Your task to perform on an android device: What's on my calendar tomorrow? Image 0: 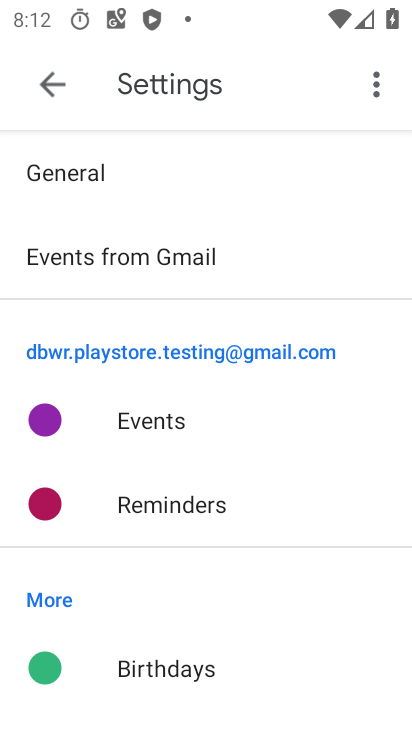
Step 0: press home button
Your task to perform on an android device: What's on my calendar tomorrow? Image 1: 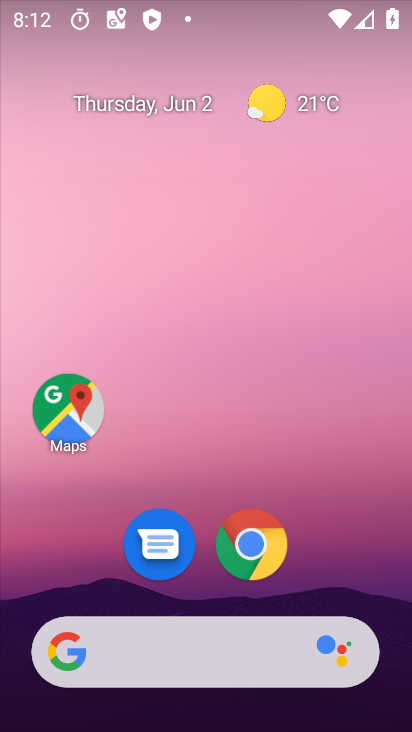
Step 1: drag from (401, 610) to (358, 286)
Your task to perform on an android device: What's on my calendar tomorrow? Image 2: 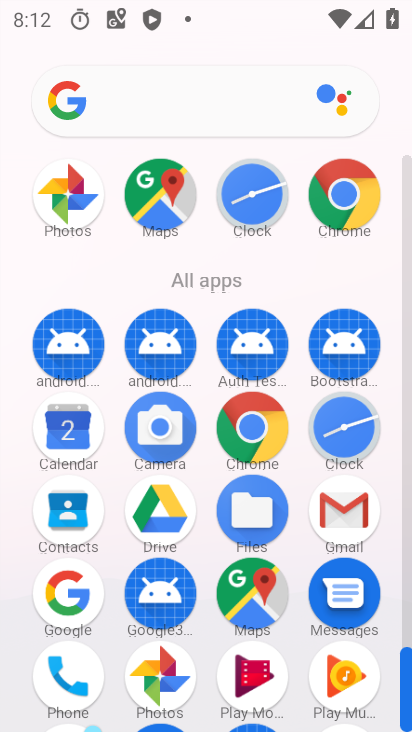
Step 2: click (84, 440)
Your task to perform on an android device: What's on my calendar tomorrow? Image 3: 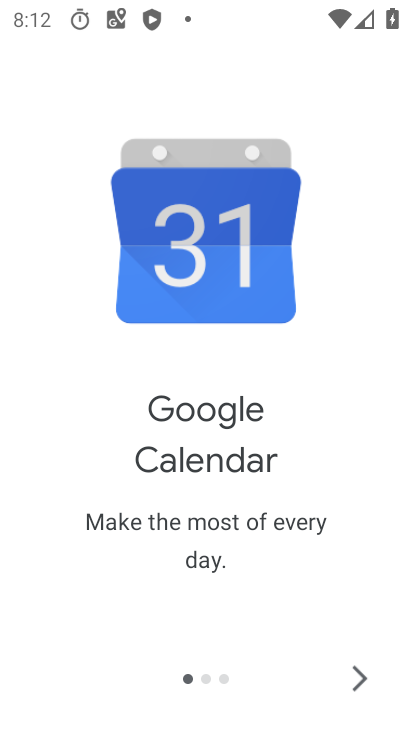
Step 3: click (363, 682)
Your task to perform on an android device: What's on my calendar tomorrow? Image 4: 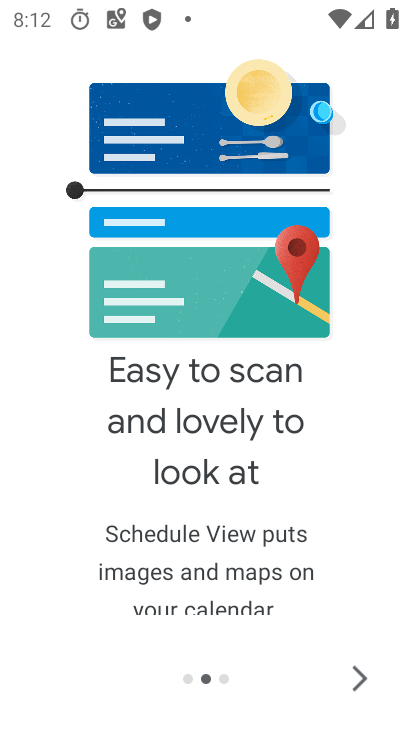
Step 4: click (363, 682)
Your task to perform on an android device: What's on my calendar tomorrow? Image 5: 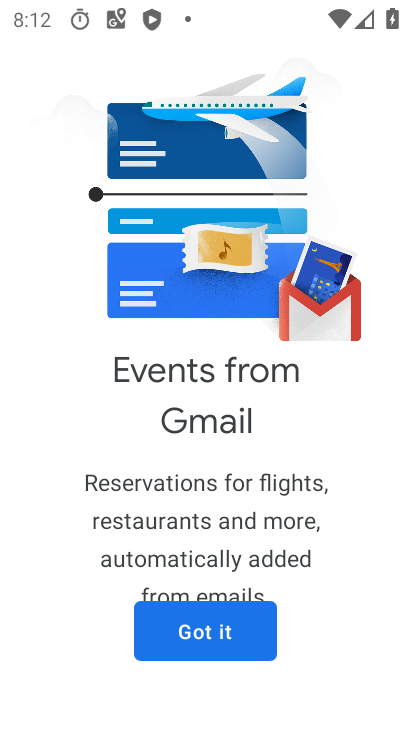
Step 5: click (220, 641)
Your task to perform on an android device: What's on my calendar tomorrow? Image 6: 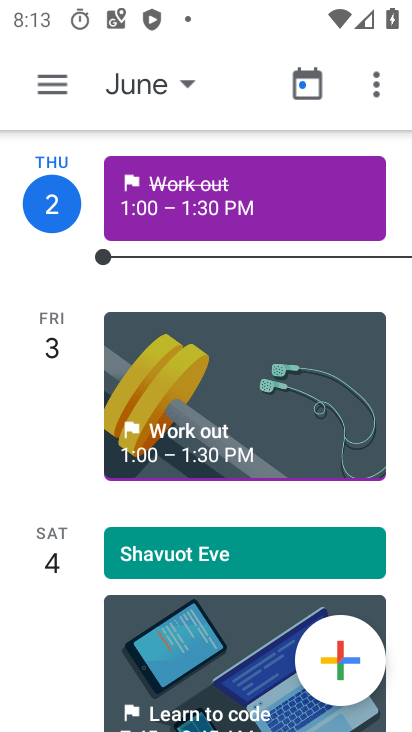
Step 6: click (152, 88)
Your task to perform on an android device: What's on my calendar tomorrow? Image 7: 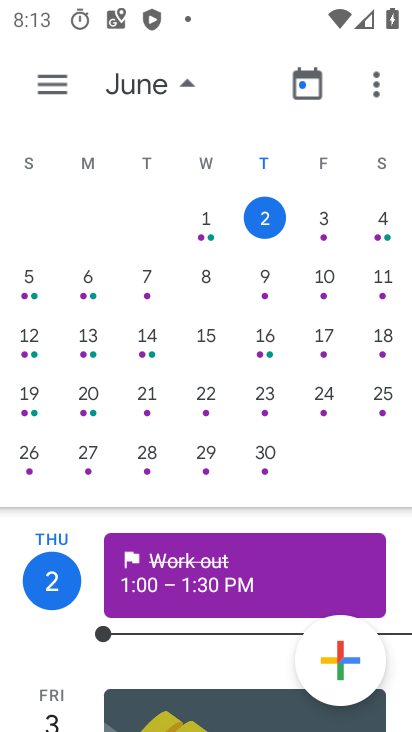
Step 7: click (322, 234)
Your task to perform on an android device: What's on my calendar tomorrow? Image 8: 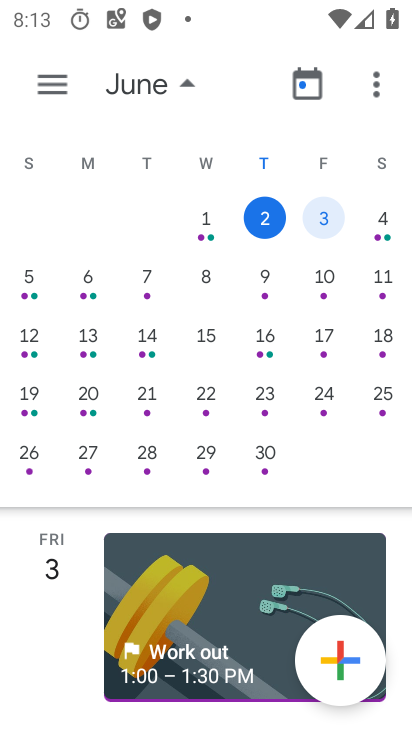
Step 8: click (387, 225)
Your task to perform on an android device: What's on my calendar tomorrow? Image 9: 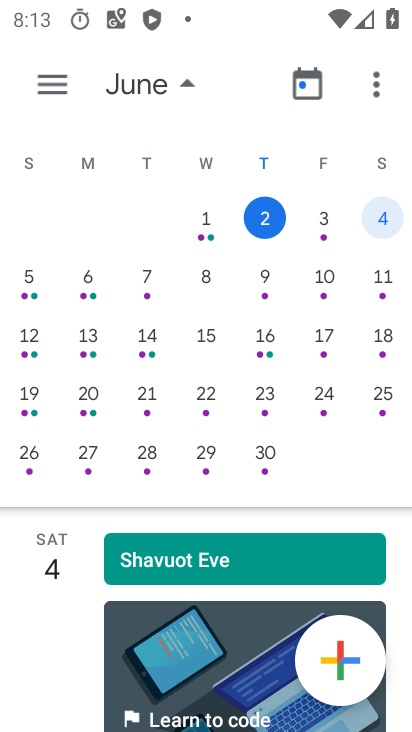
Step 9: click (178, 93)
Your task to perform on an android device: What's on my calendar tomorrow? Image 10: 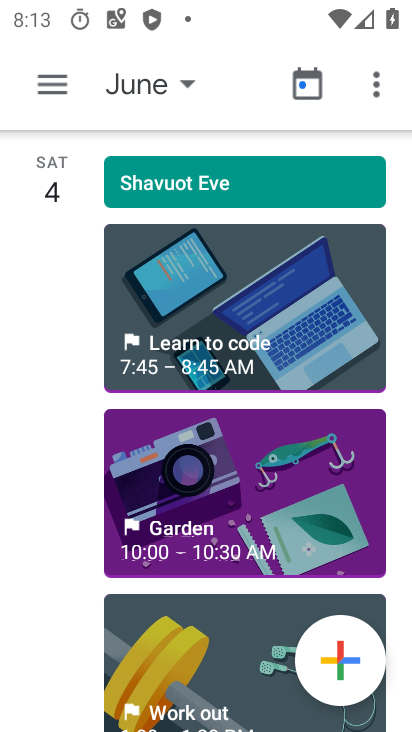
Step 10: task complete